Your task to perform on an android device: toggle translation in the chrome app Image 0: 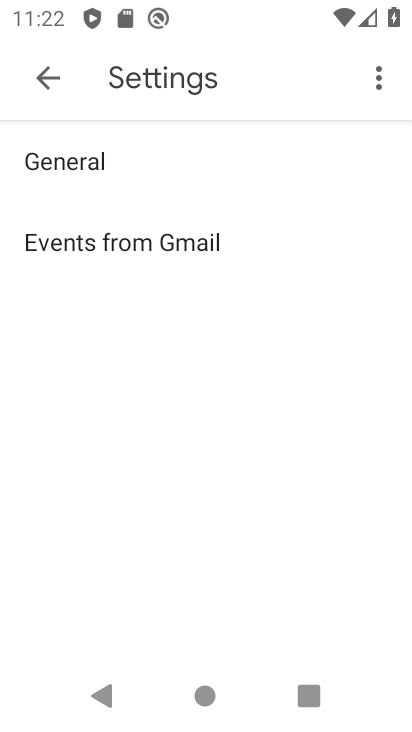
Step 0: press home button
Your task to perform on an android device: toggle translation in the chrome app Image 1: 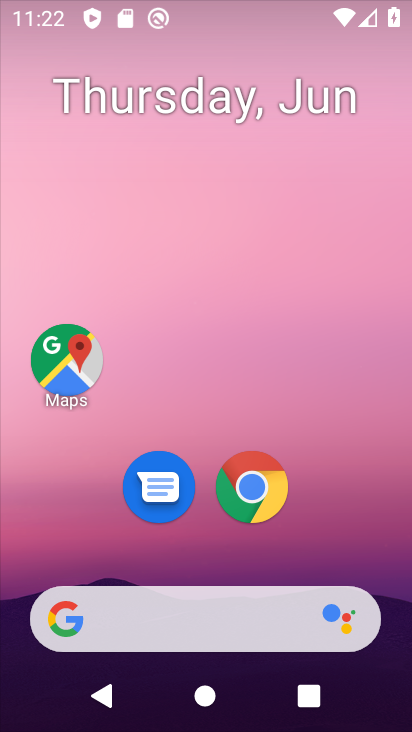
Step 1: click (284, 496)
Your task to perform on an android device: toggle translation in the chrome app Image 2: 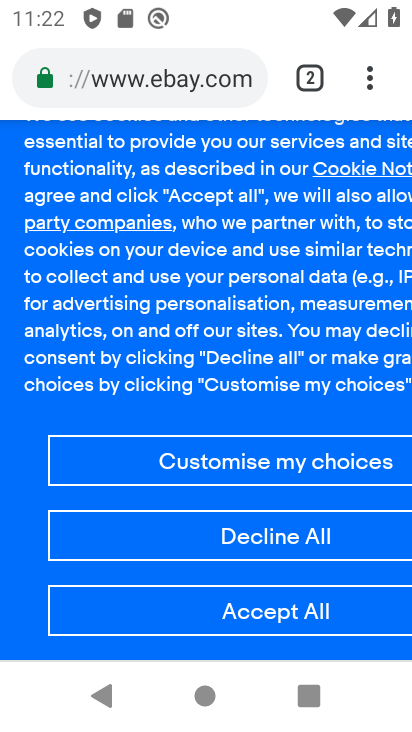
Step 2: drag from (365, 78) to (139, 573)
Your task to perform on an android device: toggle translation in the chrome app Image 3: 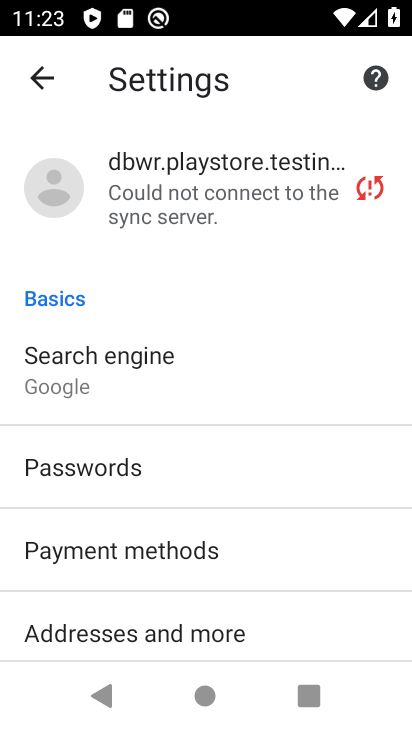
Step 3: drag from (131, 582) to (244, 215)
Your task to perform on an android device: toggle translation in the chrome app Image 4: 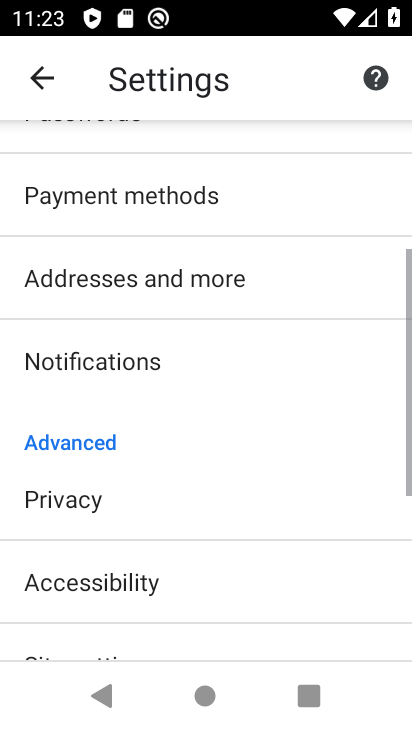
Step 4: drag from (190, 551) to (259, 244)
Your task to perform on an android device: toggle translation in the chrome app Image 5: 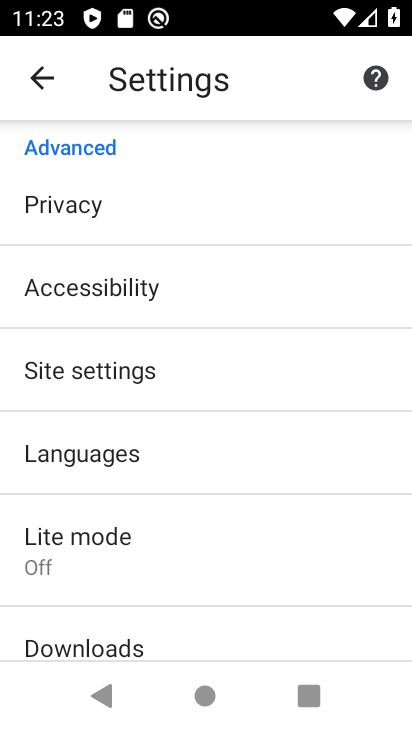
Step 5: click (184, 469)
Your task to perform on an android device: toggle translation in the chrome app Image 6: 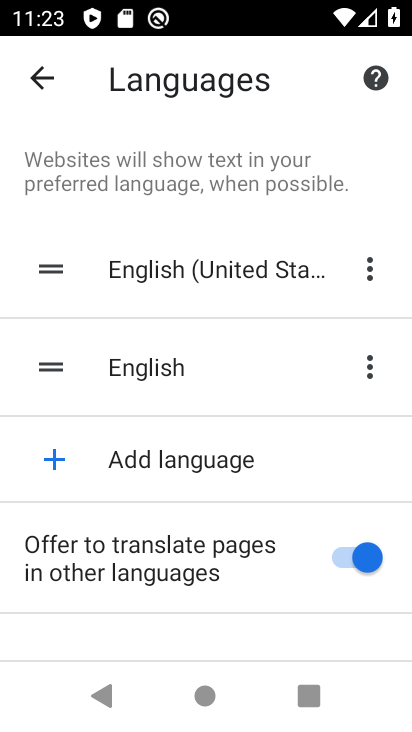
Step 6: click (368, 560)
Your task to perform on an android device: toggle translation in the chrome app Image 7: 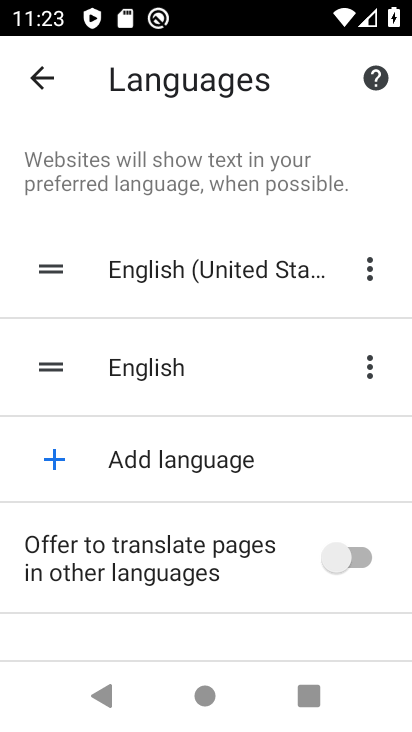
Step 7: task complete